Your task to perform on an android device: turn off improve location accuracy Image 0: 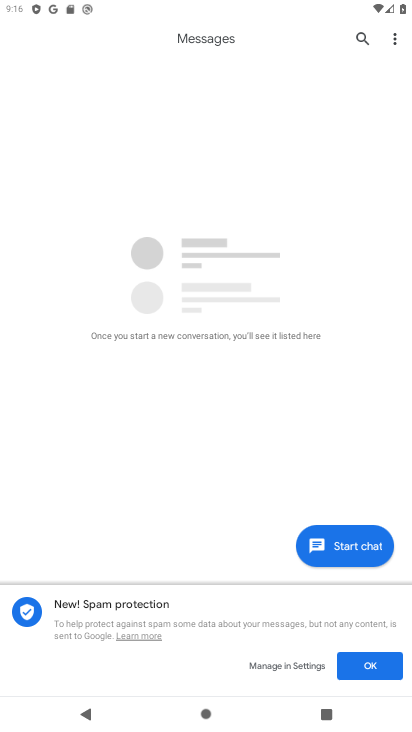
Step 0: press home button
Your task to perform on an android device: turn off improve location accuracy Image 1: 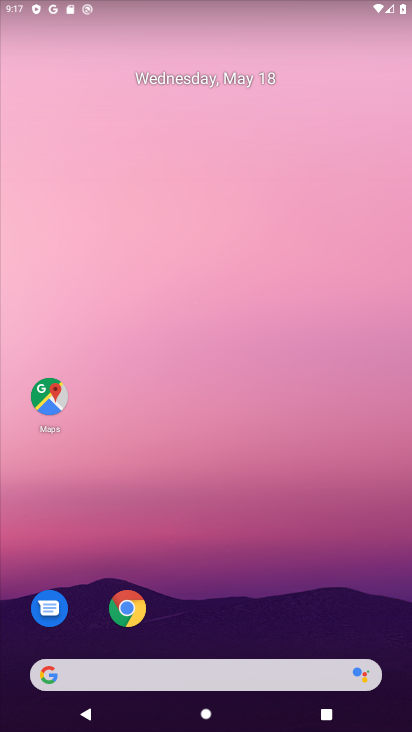
Step 1: drag from (362, 596) to (244, 25)
Your task to perform on an android device: turn off improve location accuracy Image 2: 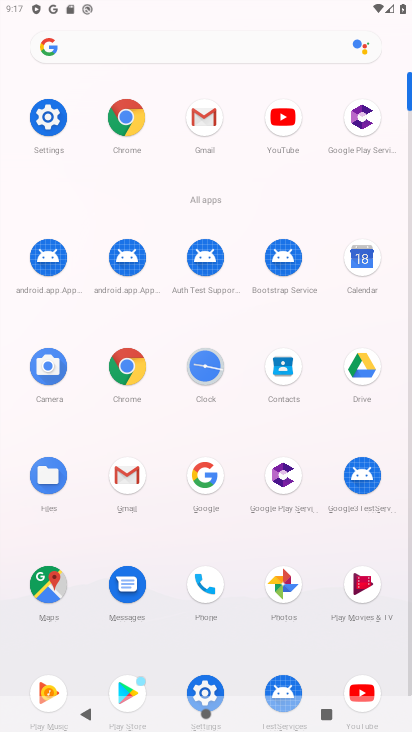
Step 2: click (55, 142)
Your task to perform on an android device: turn off improve location accuracy Image 3: 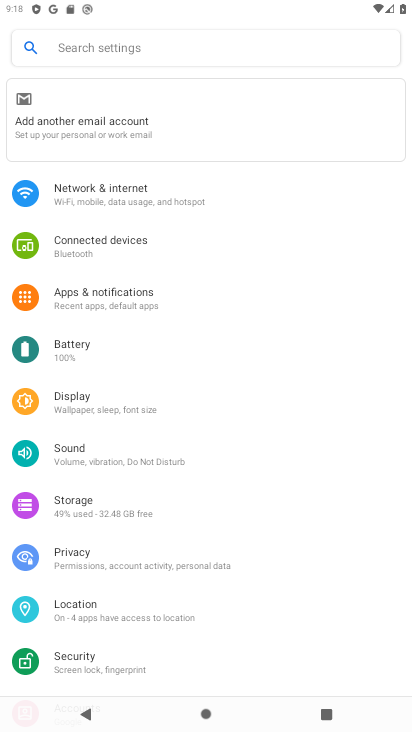
Step 3: click (90, 599)
Your task to perform on an android device: turn off improve location accuracy Image 4: 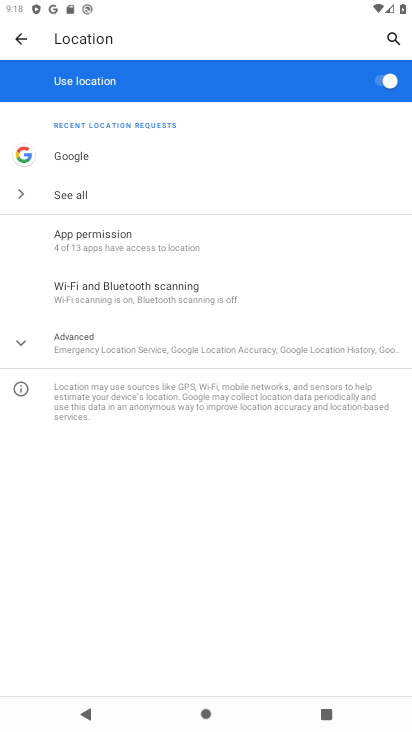
Step 4: click (127, 330)
Your task to perform on an android device: turn off improve location accuracy Image 5: 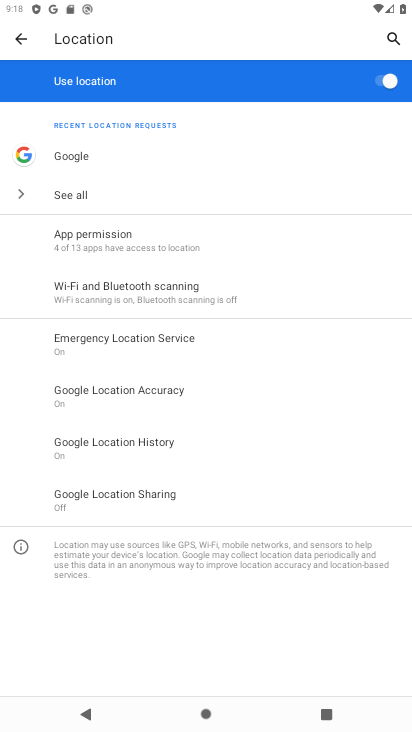
Step 5: click (174, 395)
Your task to perform on an android device: turn off improve location accuracy Image 6: 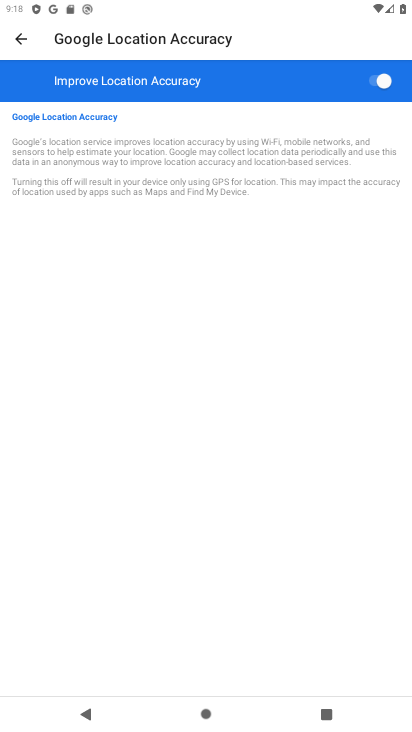
Step 6: click (371, 86)
Your task to perform on an android device: turn off improve location accuracy Image 7: 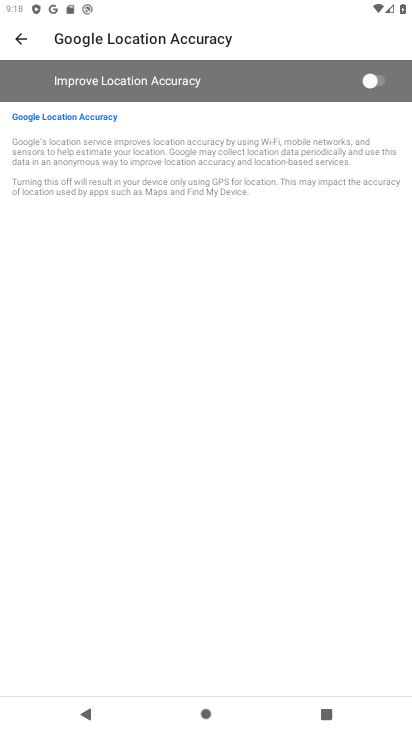
Step 7: task complete